Your task to perform on an android device: Go to display settings Image 0: 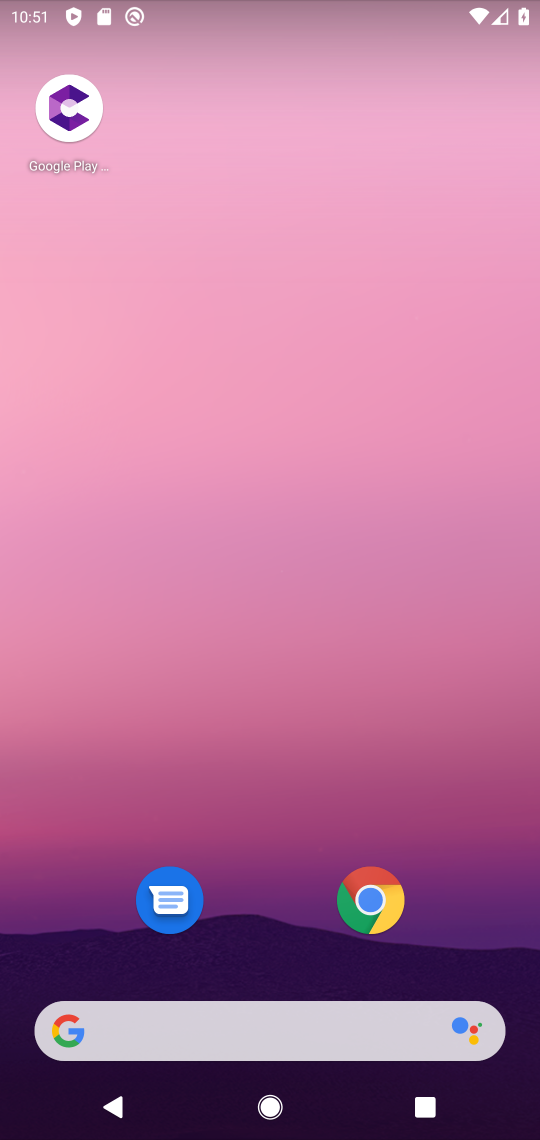
Step 0: press home button
Your task to perform on an android device: Go to display settings Image 1: 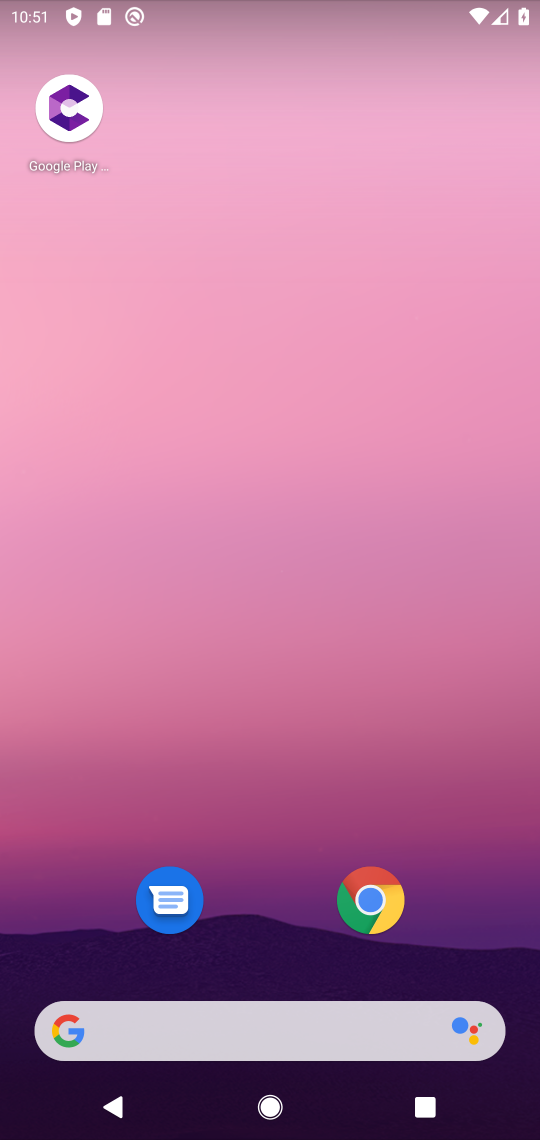
Step 1: press home button
Your task to perform on an android device: Go to display settings Image 2: 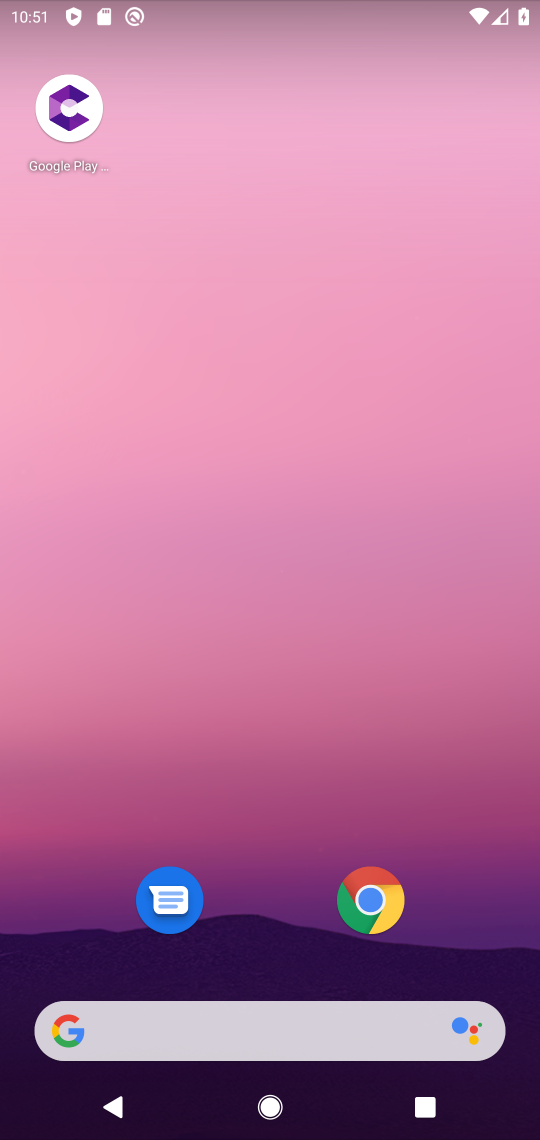
Step 2: drag from (241, 848) to (294, 75)
Your task to perform on an android device: Go to display settings Image 3: 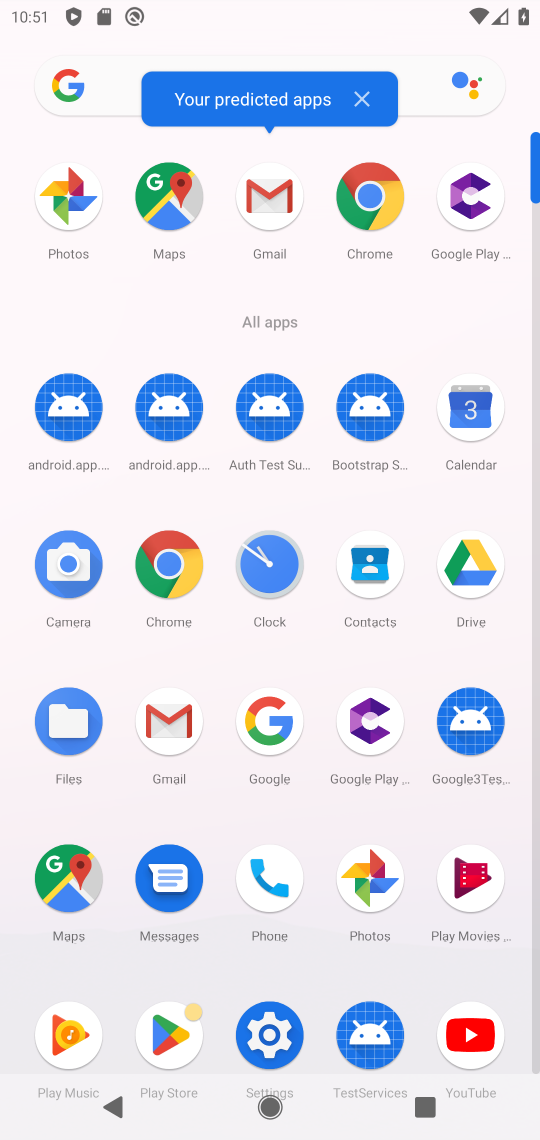
Step 3: click (290, 1046)
Your task to perform on an android device: Go to display settings Image 4: 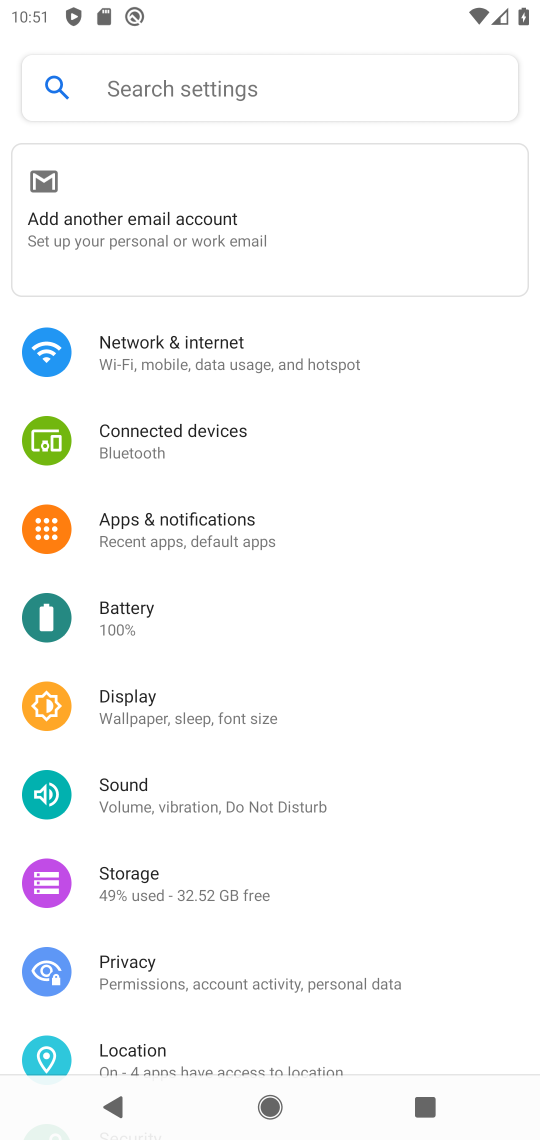
Step 4: click (185, 720)
Your task to perform on an android device: Go to display settings Image 5: 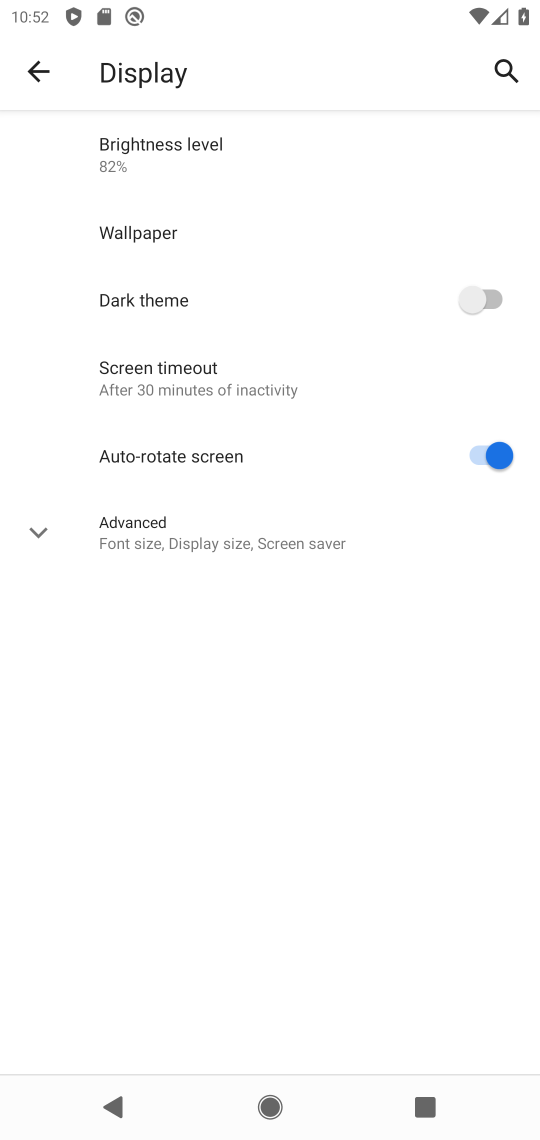
Step 5: task complete